Your task to perform on an android device: turn on improve location accuracy Image 0: 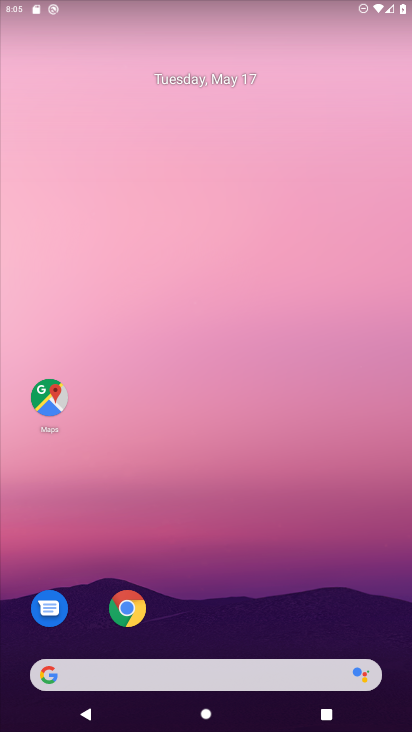
Step 0: drag from (222, 588) to (297, 3)
Your task to perform on an android device: turn on improve location accuracy Image 1: 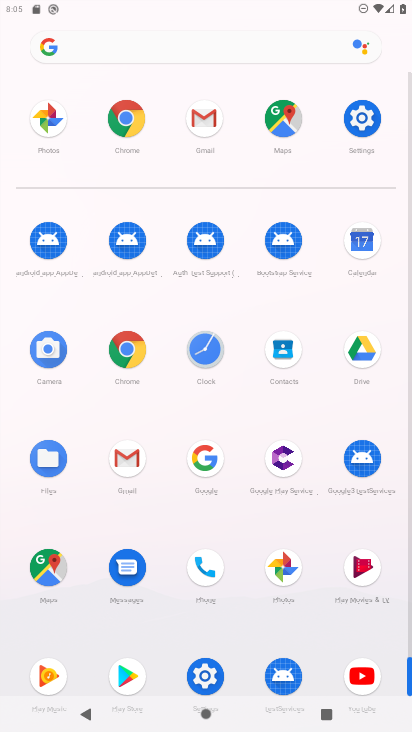
Step 1: click (365, 140)
Your task to perform on an android device: turn on improve location accuracy Image 2: 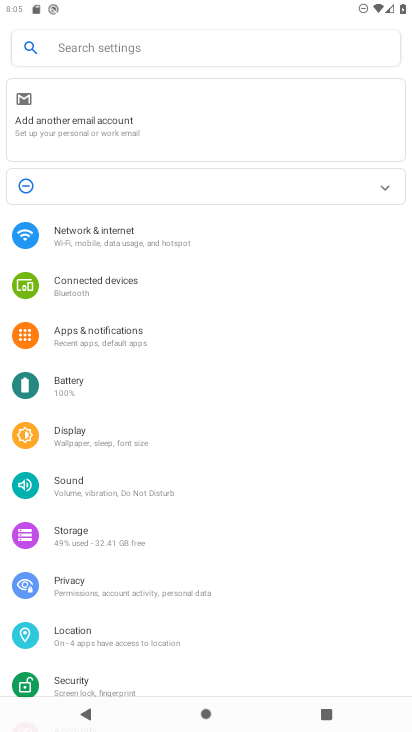
Step 2: click (88, 642)
Your task to perform on an android device: turn on improve location accuracy Image 3: 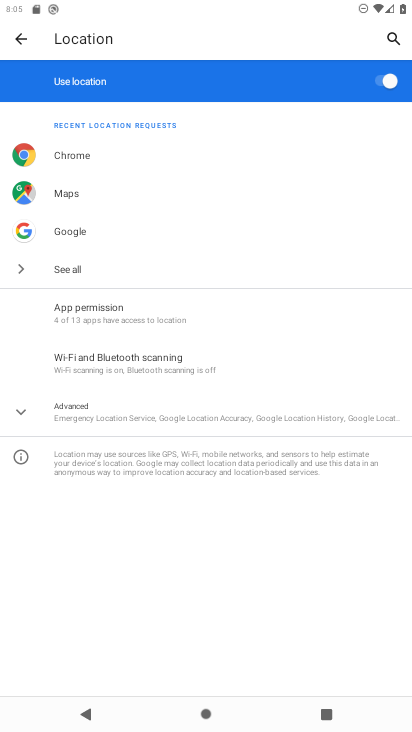
Step 3: click (92, 419)
Your task to perform on an android device: turn on improve location accuracy Image 4: 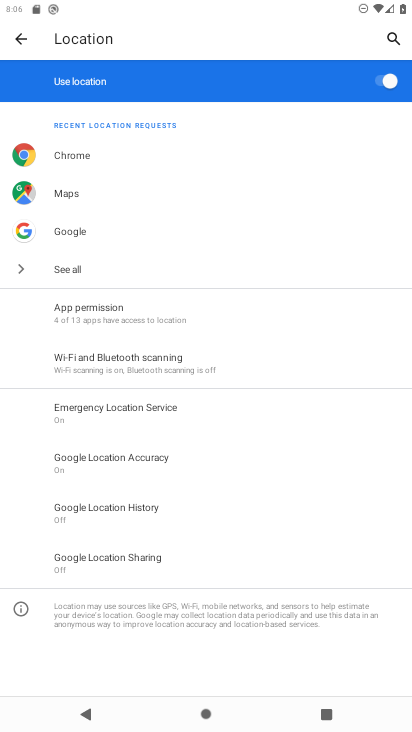
Step 4: click (123, 461)
Your task to perform on an android device: turn on improve location accuracy Image 5: 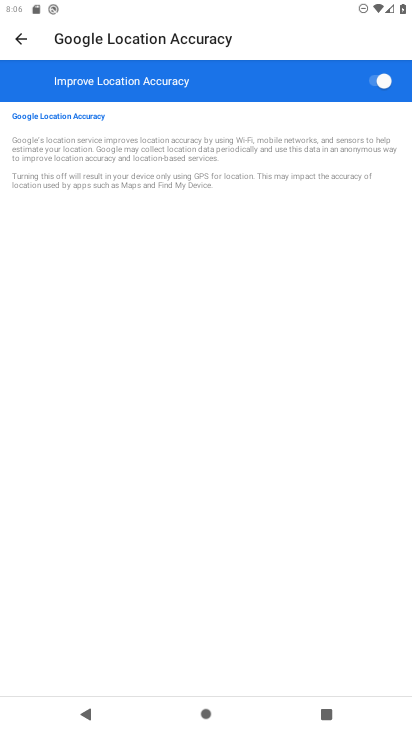
Step 5: task complete